Your task to perform on an android device: turn on priority inbox in the gmail app Image 0: 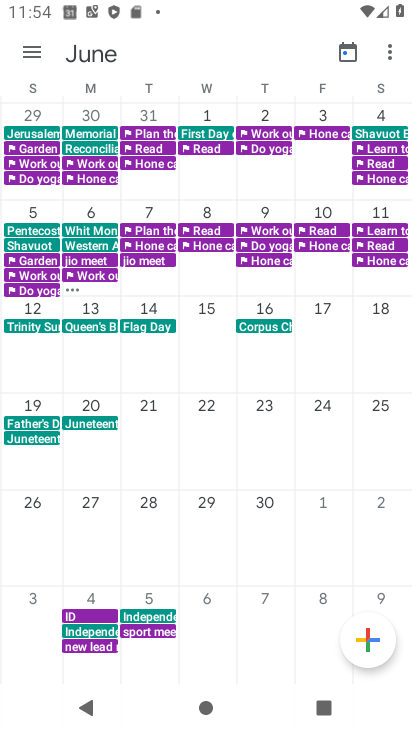
Step 0: press home button
Your task to perform on an android device: turn on priority inbox in the gmail app Image 1: 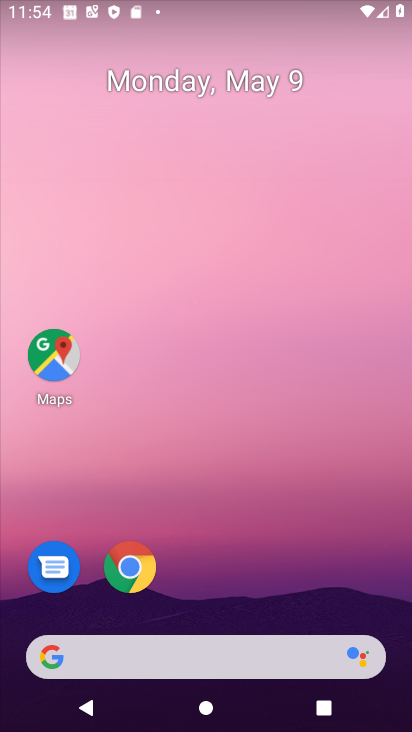
Step 1: drag from (198, 638) to (234, 4)
Your task to perform on an android device: turn on priority inbox in the gmail app Image 2: 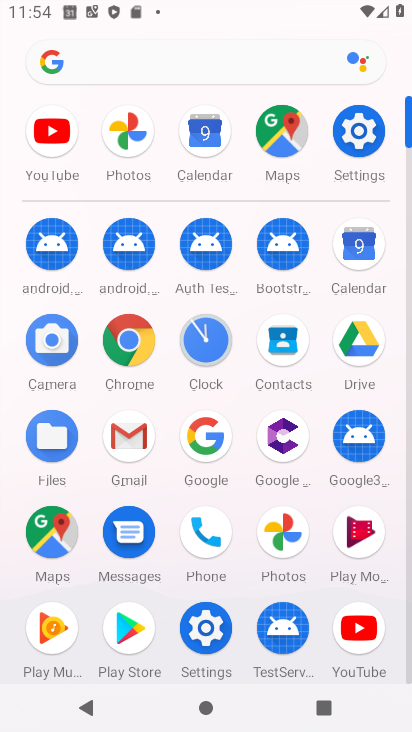
Step 2: click (136, 442)
Your task to perform on an android device: turn on priority inbox in the gmail app Image 3: 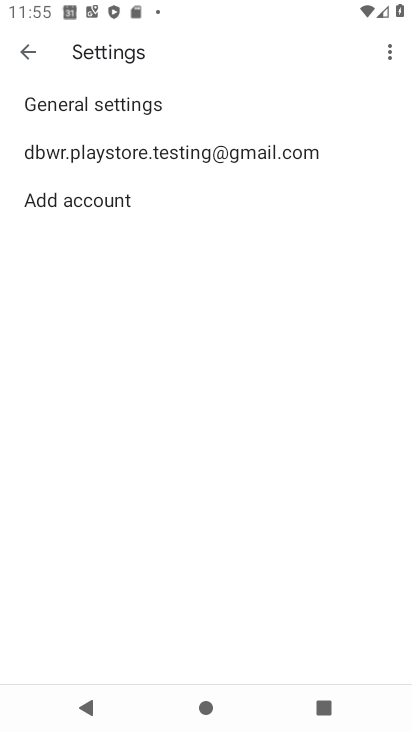
Step 3: click (205, 155)
Your task to perform on an android device: turn on priority inbox in the gmail app Image 4: 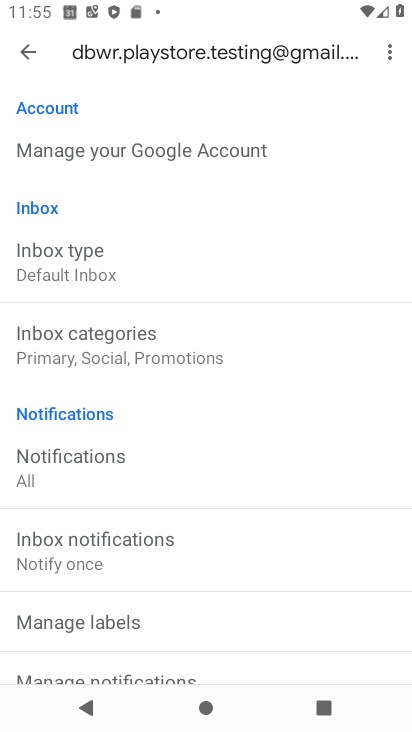
Step 4: click (92, 266)
Your task to perform on an android device: turn on priority inbox in the gmail app Image 5: 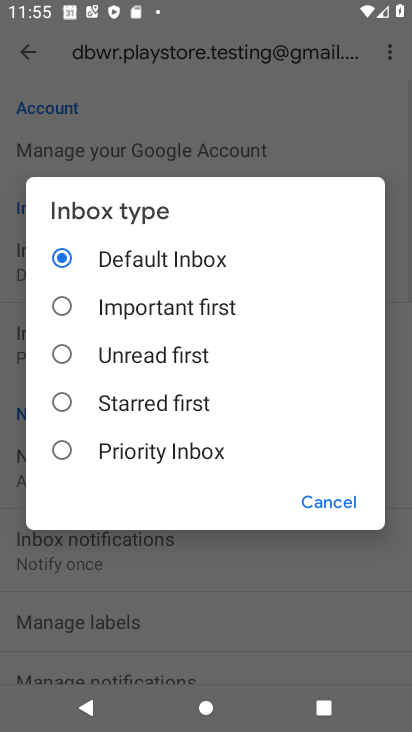
Step 5: click (169, 450)
Your task to perform on an android device: turn on priority inbox in the gmail app Image 6: 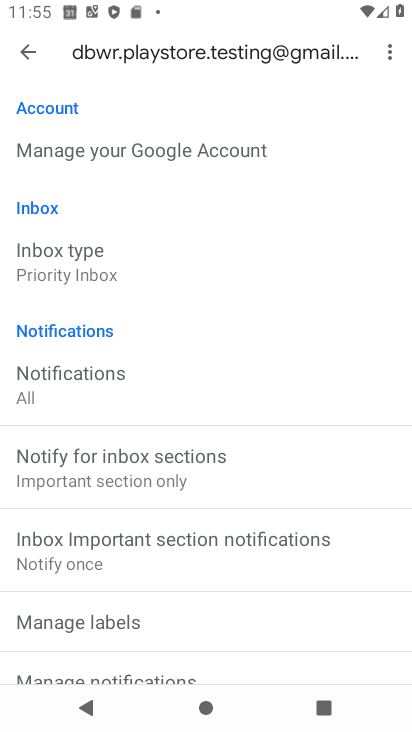
Step 6: task complete